Your task to perform on an android device: open wifi settings Image 0: 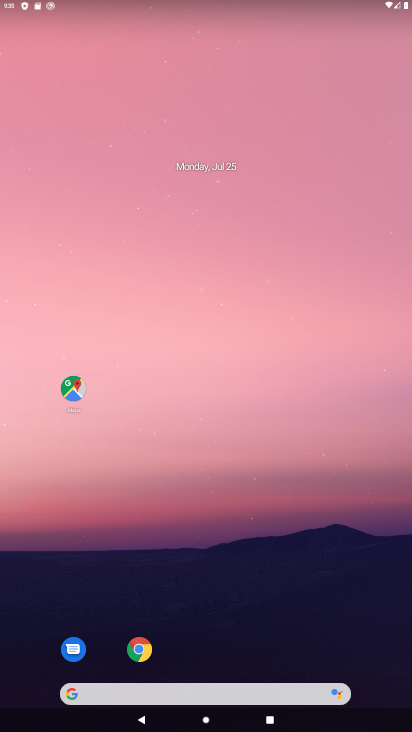
Step 0: drag from (200, 654) to (216, 41)
Your task to perform on an android device: open wifi settings Image 1: 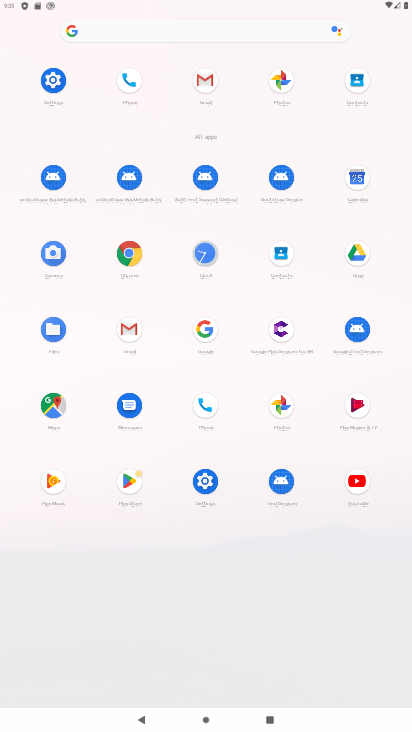
Step 1: click (209, 502)
Your task to perform on an android device: open wifi settings Image 2: 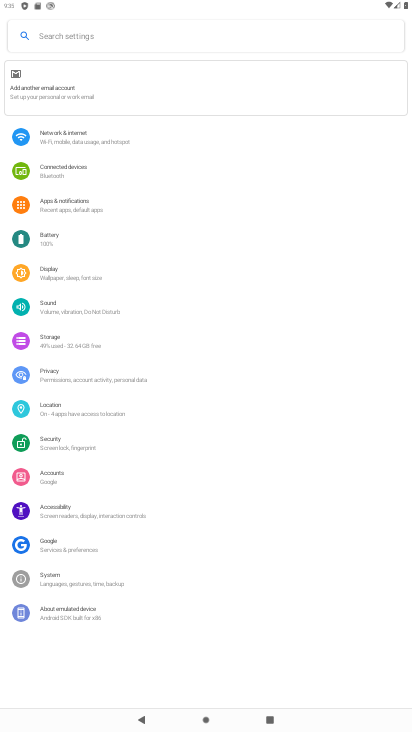
Step 2: click (91, 141)
Your task to perform on an android device: open wifi settings Image 3: 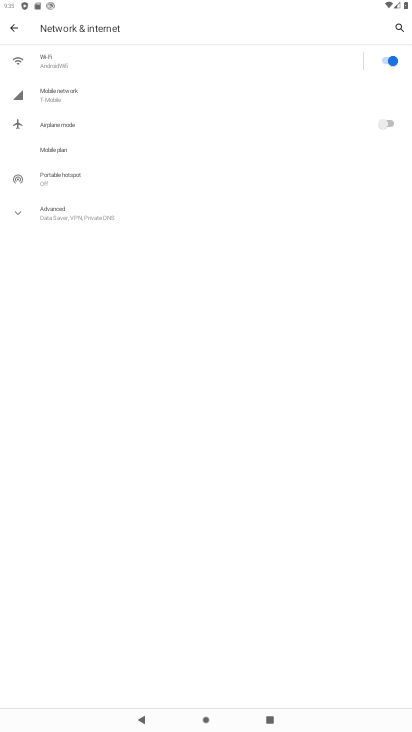
Step 3: click (66, 61)
Your task to perform on an android device: open wifi settings Image 4: 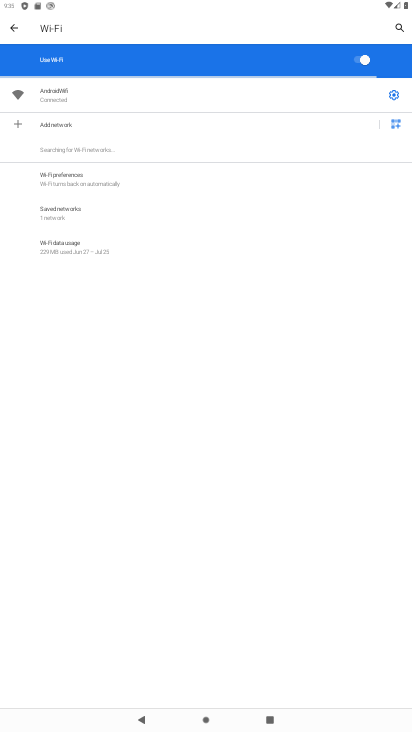
Step 4: task complete